Your task to perform on an android device: open app "Adobe Acrobat Reader: Edit PDF" (install if not already installed) and go to login screen Image 0: 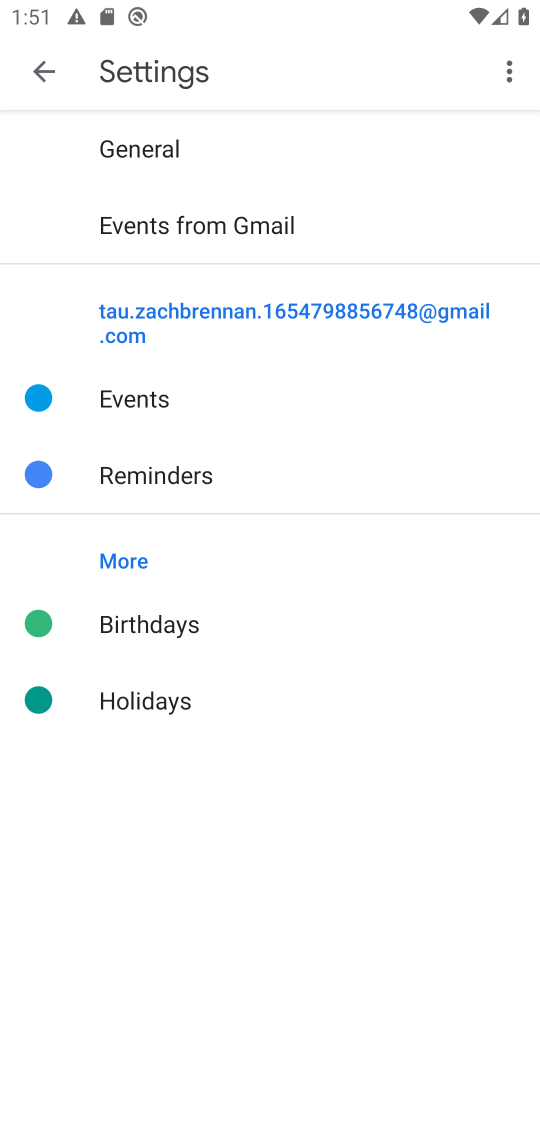
Step 0: press home button
Your task to perform on an android device: open app "Adobe Acrobat Reader: Edit PDF" (install if not already installed) and go to login screen Image 1: 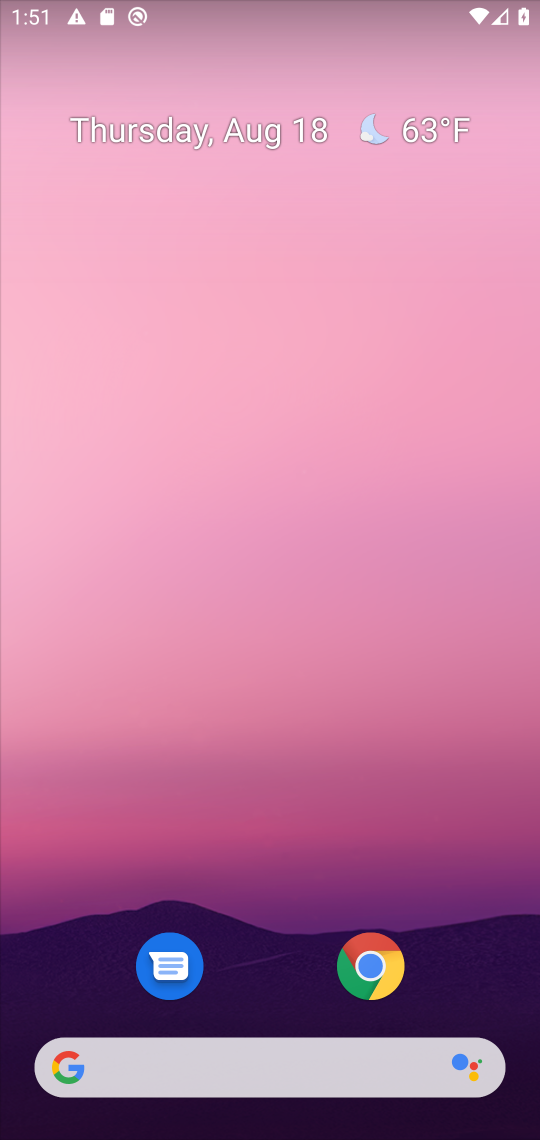
Step 1: drag from (246, 1007) to (329, 13)
Your task to perform on an android device: open app "Adobe Acrobat Reader: Edit PDF" (install if not already installed) and go to login screen Image 2: 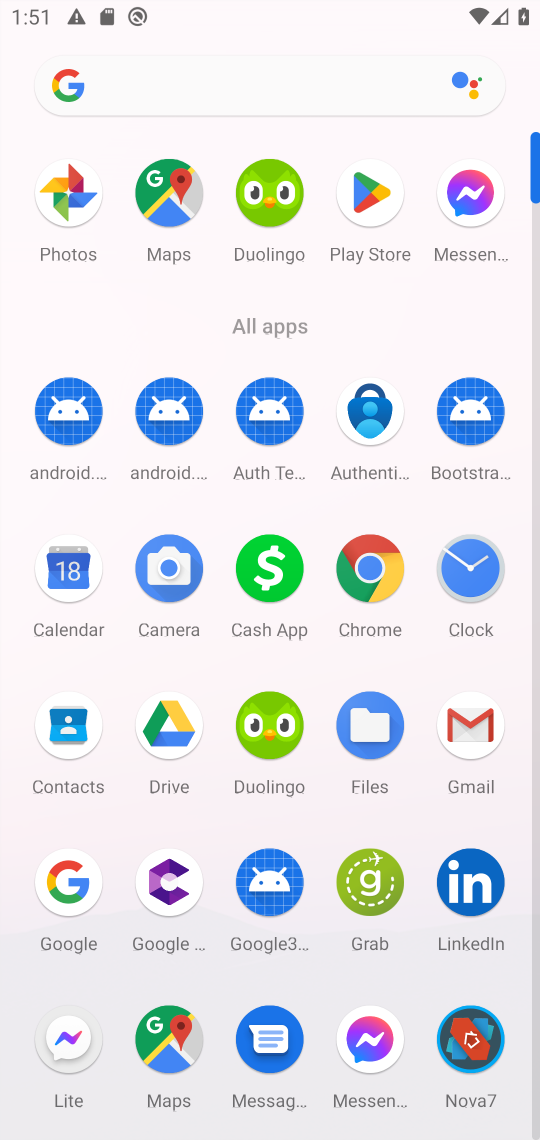
Step 2: click (367, 180)
Your task to perform on an android device: open app "Adobe Acrobat Reader: Edit PDF" (install if not already installed) and go to login screen Image 3: 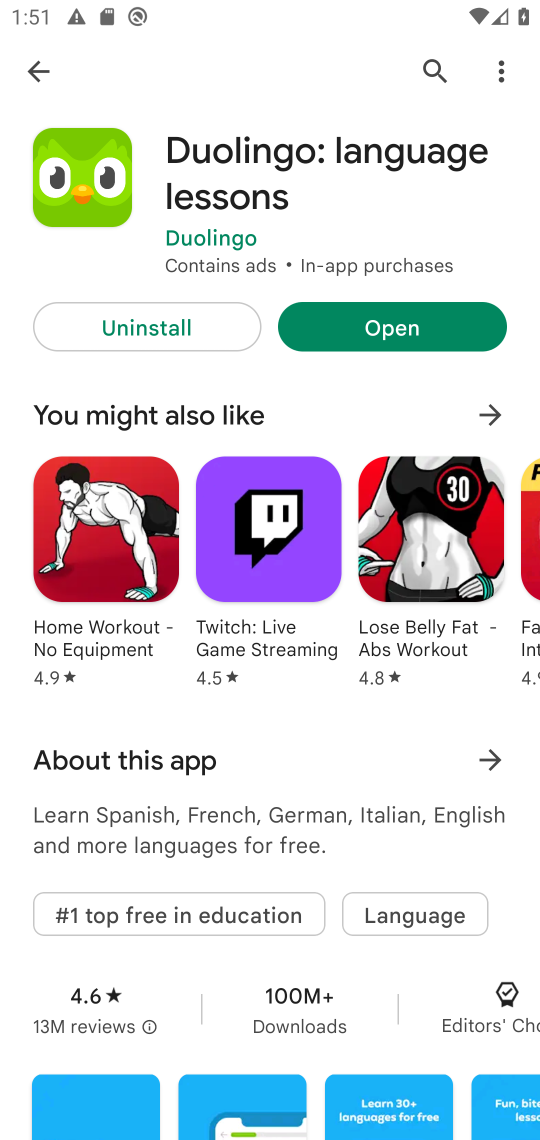
Step 3: click (433, 65)
Your task to perform on an android device: open app "Adobe Acrobat Reader: Edit PDF" (install if not already installed) and go to login screen Image 4: 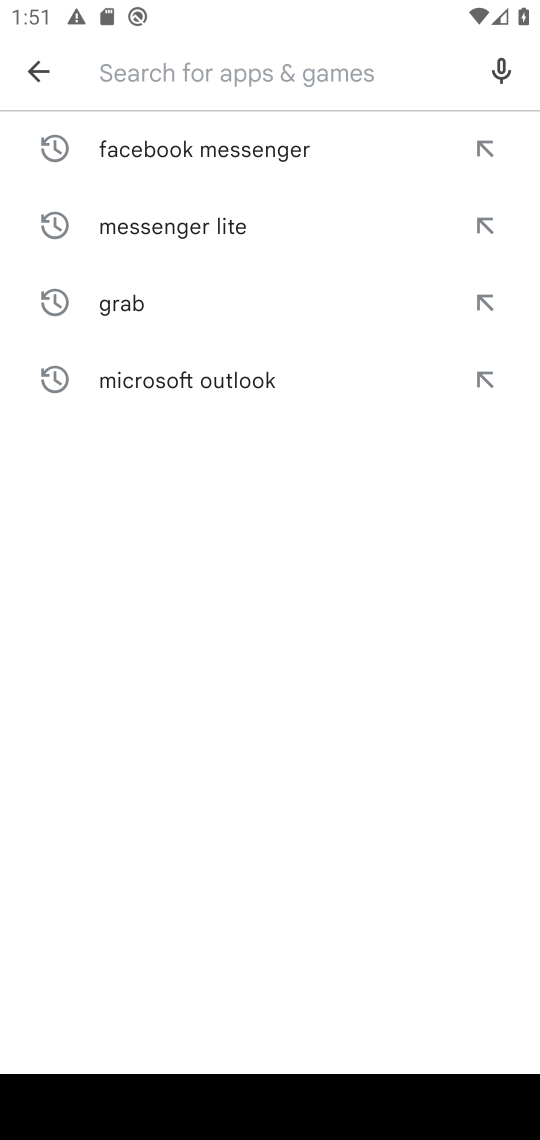
Step 4: type "Adobe Acrobat Reader: Edit PDF"
Your task to perform on an android device: open app "Adobe Acrobat Reader: Edit PDF" (install if not already installed) and go to login screen Image 5: 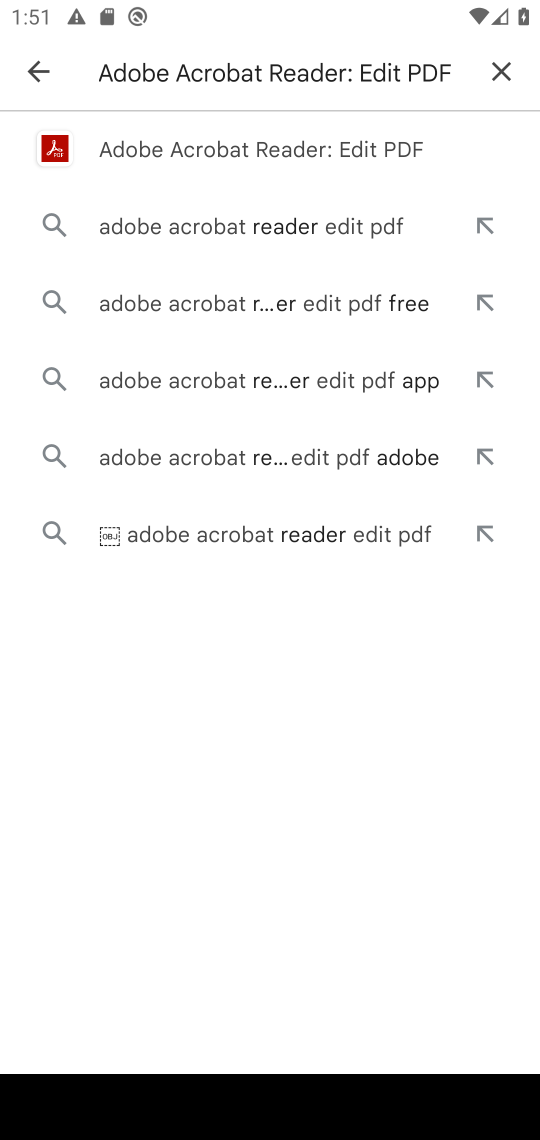
Step 5: click (220, 148)
Your task to perform on an android device: open app "Adobe Acrobat Reader: Edit PDF" (install if not already installed) and go to login screen Image 6: 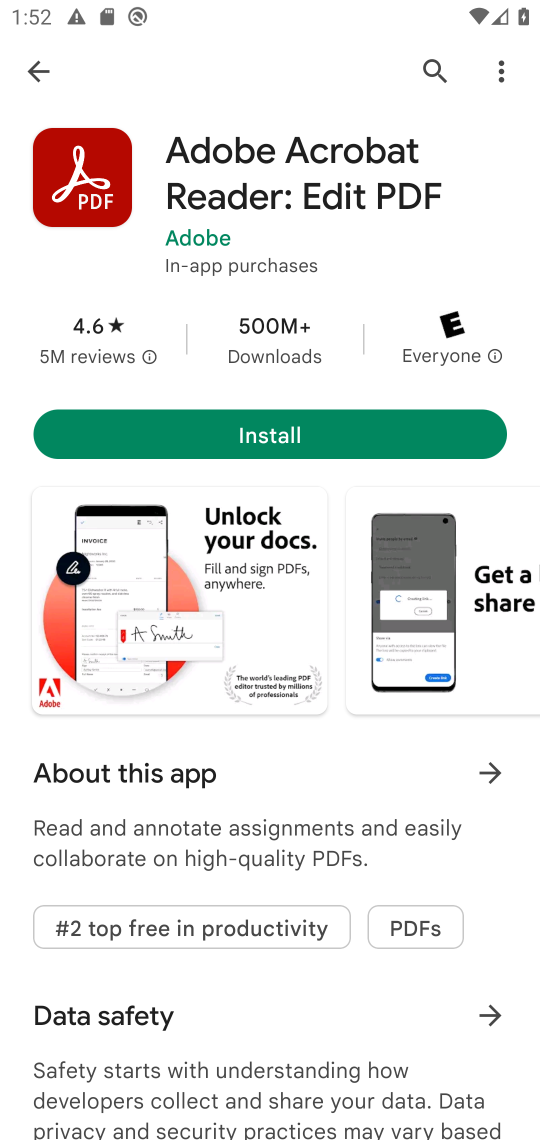
Step 6: click (251, 430)
Your task to perform on an android device: open app "Adobe Acrobat Reader: Edit PDF" (install if not already installed) and go to login screen Image 7: 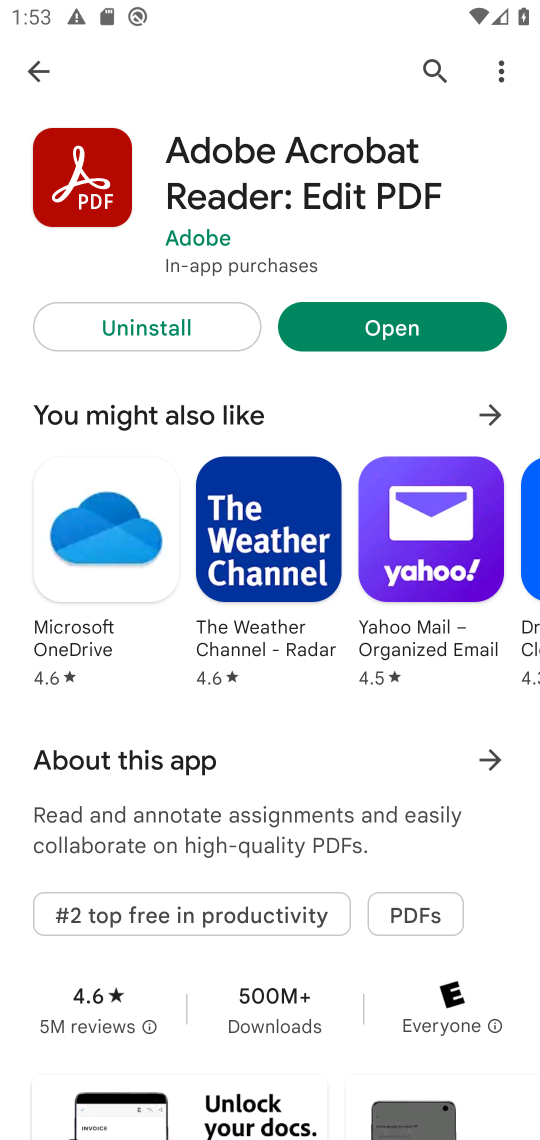
Step 7: click (379, 332)
Your task to perform on an android device: open app "Adobe Acrobat Reader: Edit PDF" (install if not already installed) and go to login screen Image 8: 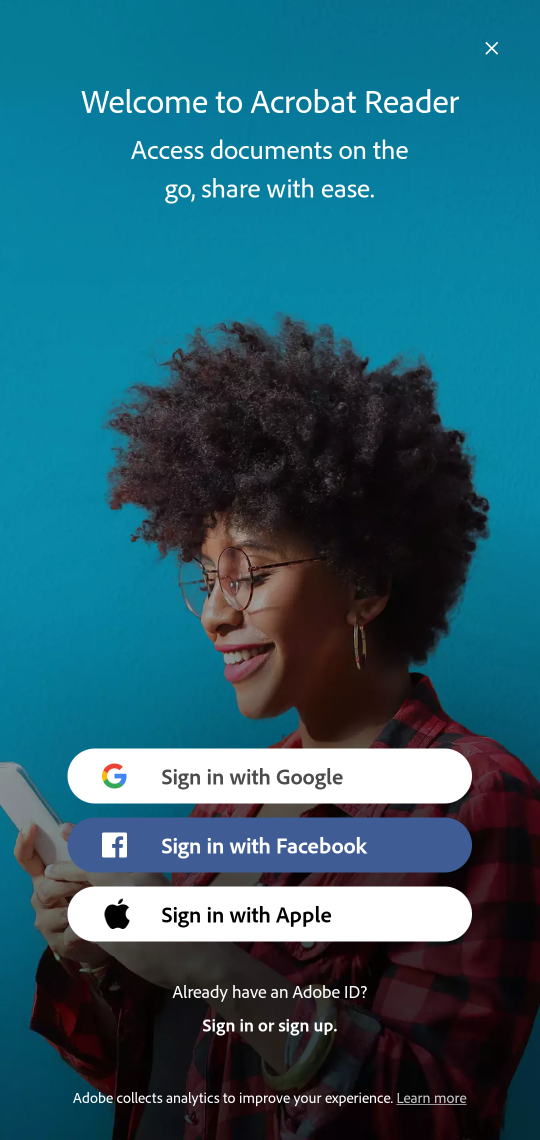
Step 8: click (242, 781)
Your task to perform on an android device: open app "Adobe Acrobat Reader: Edit PDF" (install if not already installed) and go to login screen Image 9: 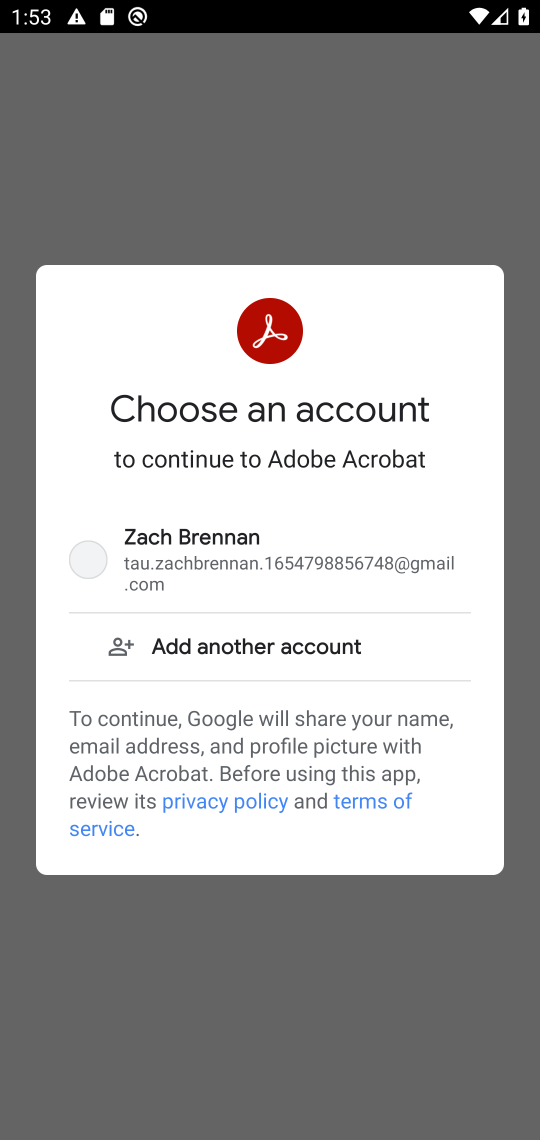
Step 9: click (167, 541)
Your task to perform on an android device: open app "Adobe Acrobat Reader: Edit PDF" (install if not already installed) and go to login screen Image 10: 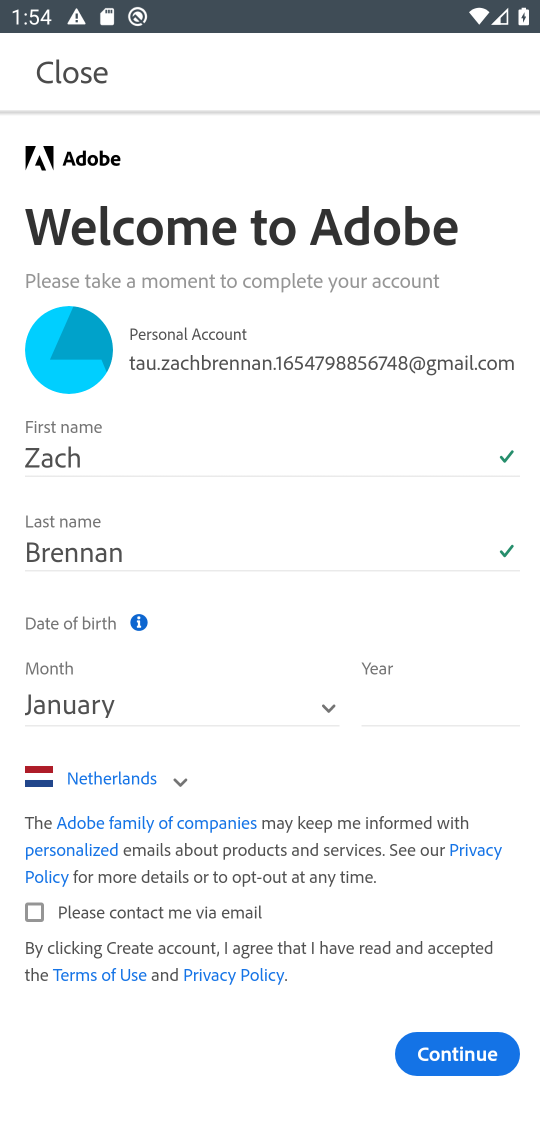
Step 10: click (456, 934)
Your task to perform on an android device: open app "Adobe Acrobat Reader: Edit PDF" (install if not already installed) and go to login screen Image 11: 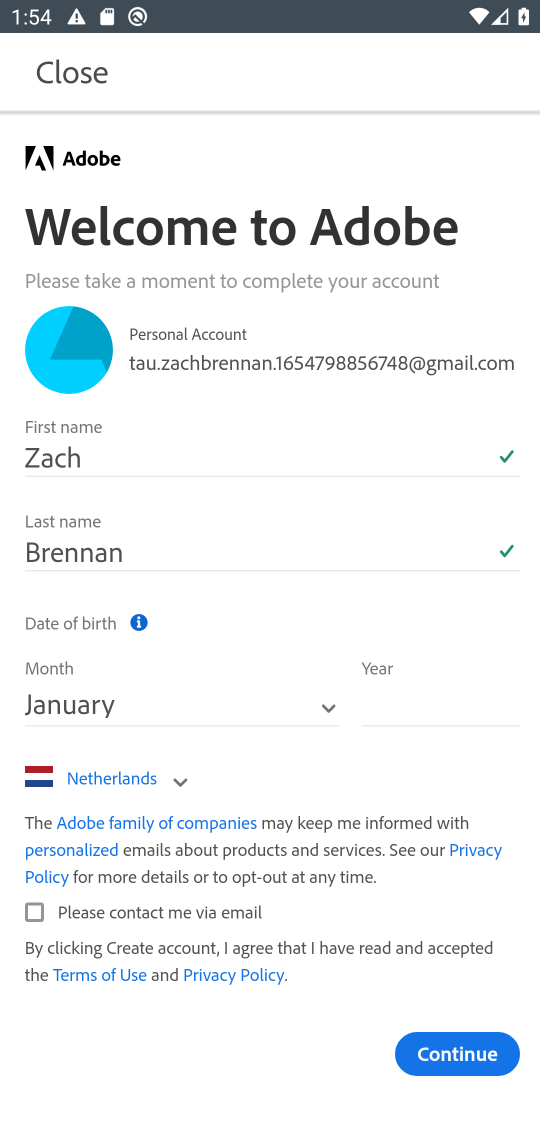
Step 11: task complete